Your task to perform on an android device: turn notification dots on Image 0: 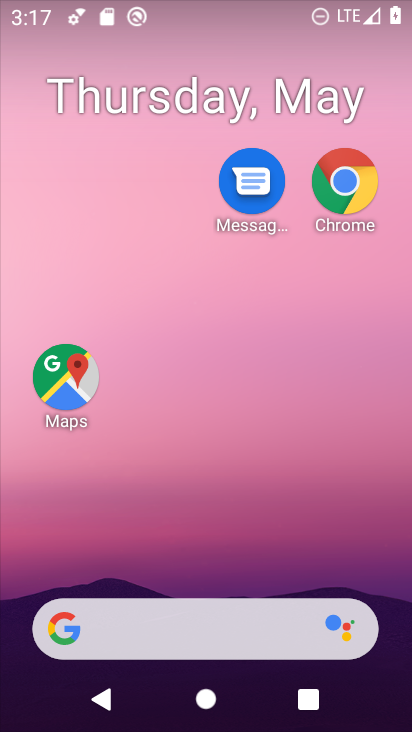
Step 0: drag from (185, 640) to (263, 44)
Your task to perform on an android device: turn notification dots on Image 1: 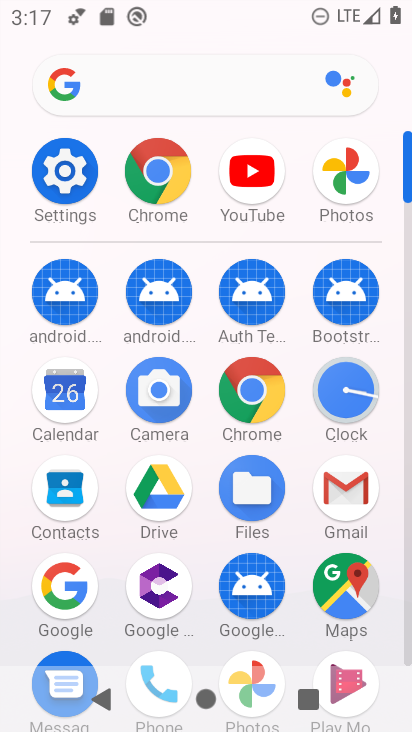
Step 1: click (52, 161)
Your task to perform on an android device: turn notification dots on Image 2: 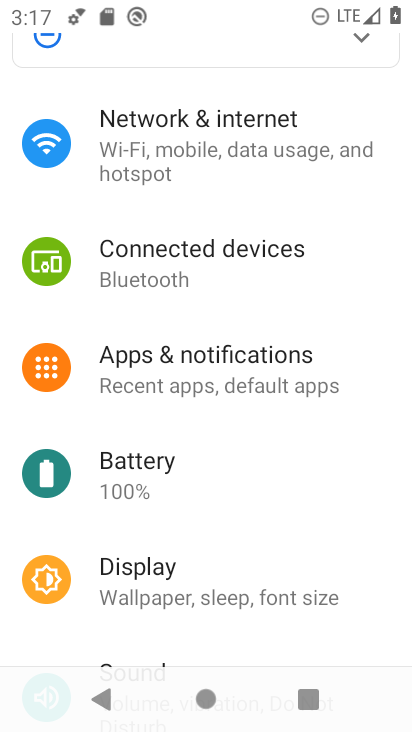
Step 2: click (252, 366)
Your task to perform on an android device: turn notification dots on Image 3: 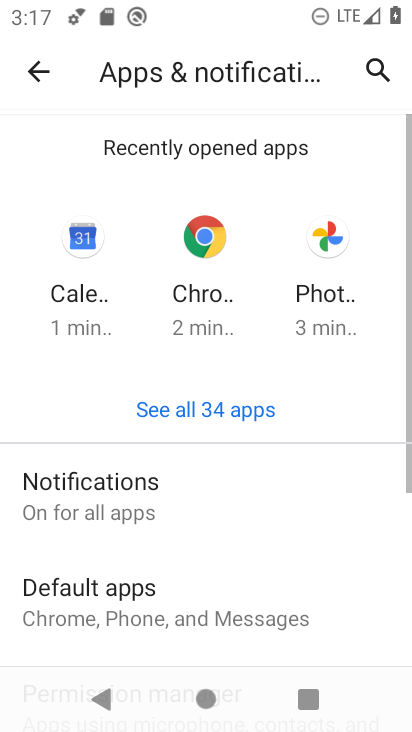
Step 3: drag from (203, 631) to (239, 163)
Your task to perform on an android device: turn notification dots on Image 4: 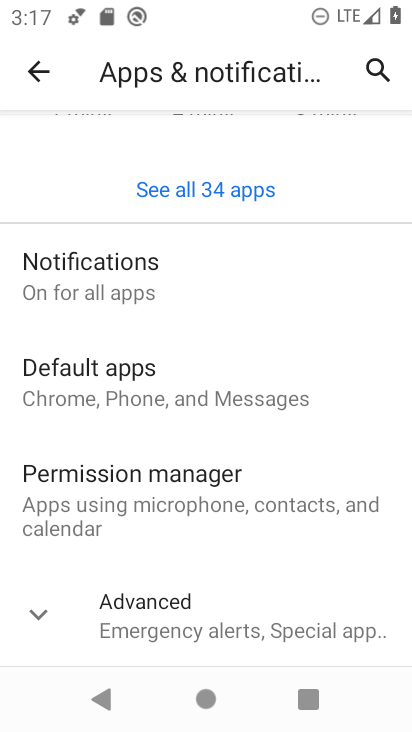
Step 4: click (162, 257)
Your task to perform on an android device: turn notification dots on Image 5: 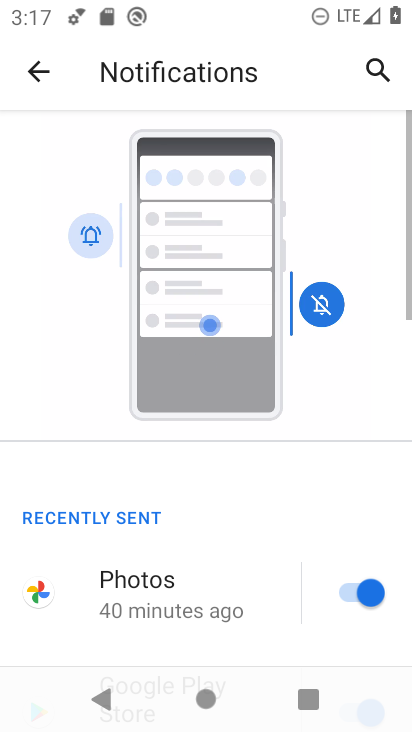
Step 5: drag from (196, 580) to (260, 23)
Your task to perform on an android device: turn notification dots on Image 6: 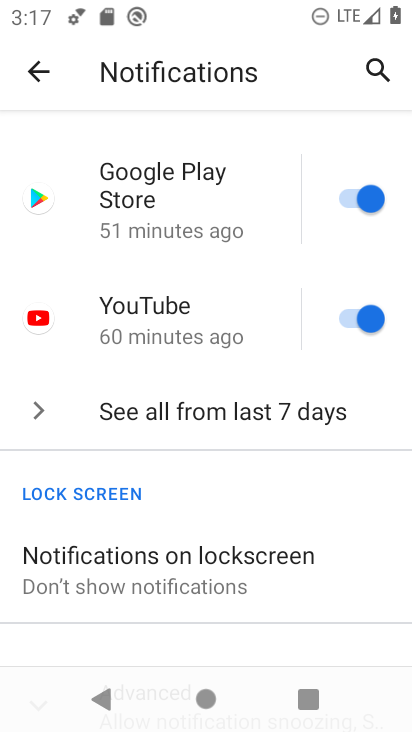
Step 6: drag from (254, 609) to (280, 1)
Your task to perform on an android device: turn notification dots on Image 7: 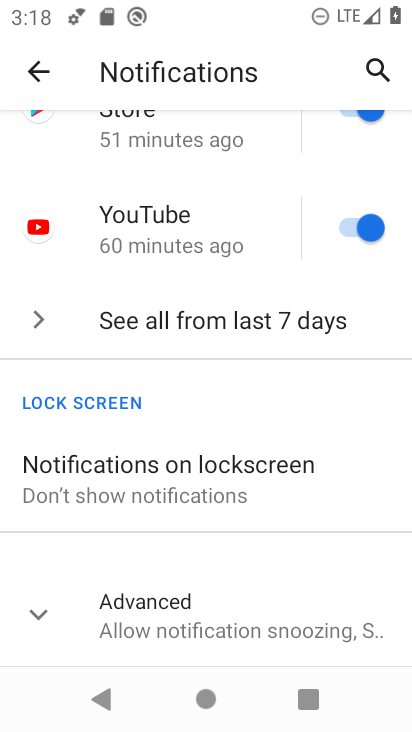
Step 7: click (156, 622)
Your task to perform on an android device: turn notification dots on Image 8: 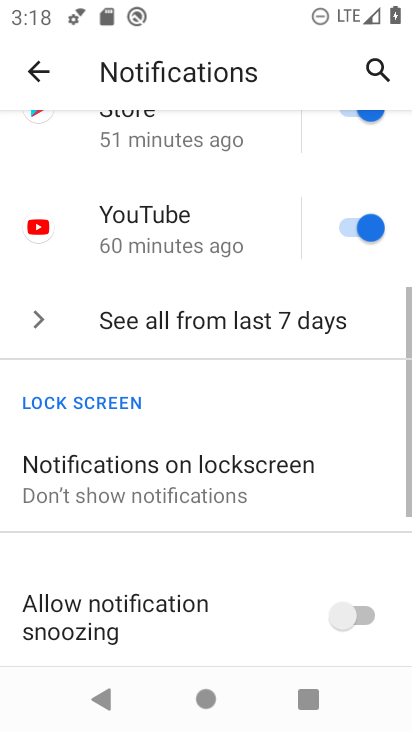
Step 8: task complete